Your task to perform on an android device: Go to accessibility settings Image 0: 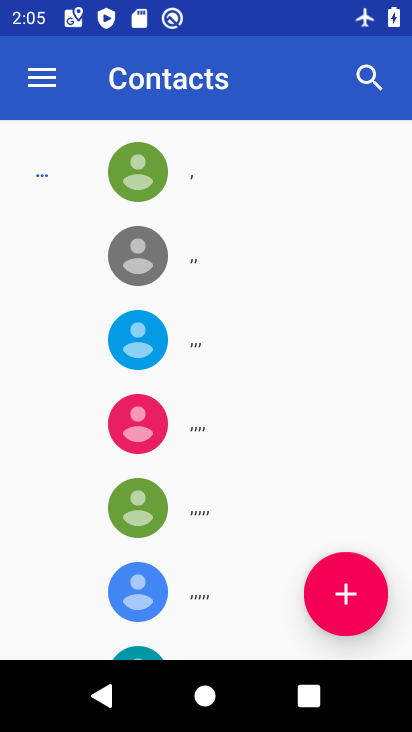
Step 0: press home button
Your task to perform on an android device: Go to accessibility settings Image 1: 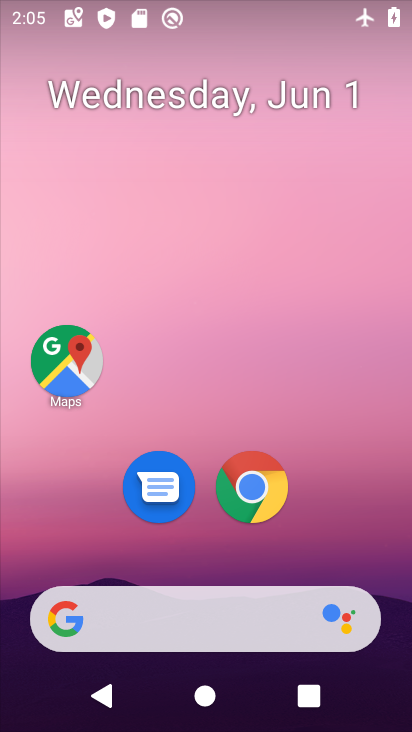
Step 1: drag from (357, 542) to (352, 163)
Your task to perform on an android device: Go to accessibility settings Image 2: 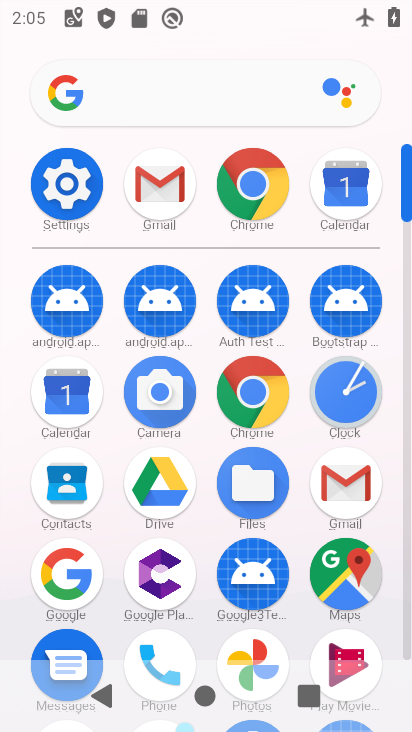
Step 2: click (72, 200)
Your task to perform on an android device: Go to accessibility settings Image 3: 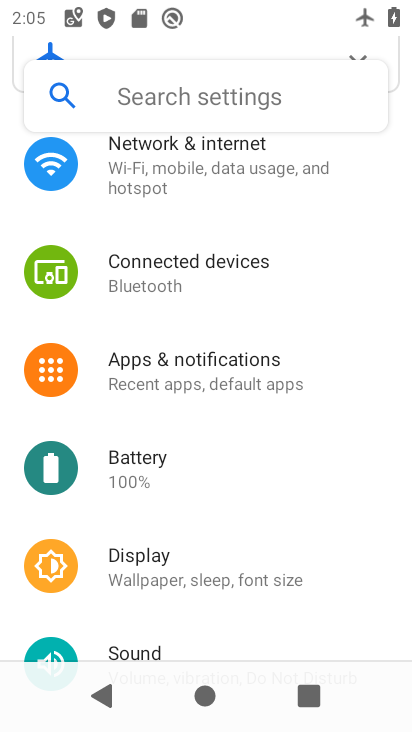
Step 3: drag from (363, 508) to (360, 372)
Your task to perform on an android device: Go to accessibility settings Image 4: 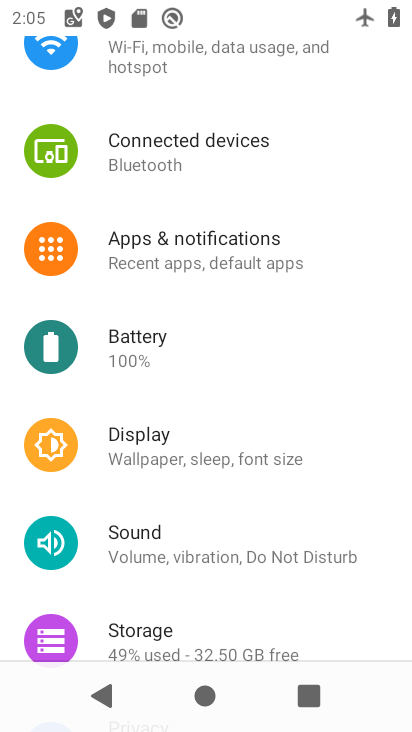
Step 4: drag from (342, 496) to (345, 382)
Your task to perform on an android device: Go to accessibility settings Image 5: 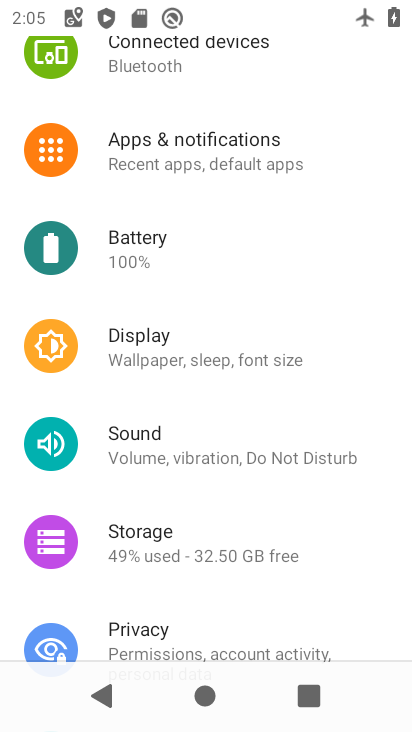
Step 5: drag from (339, 540) to (334, 379)
Your task to perform on an android device: Go to accessibility settings Image 6: 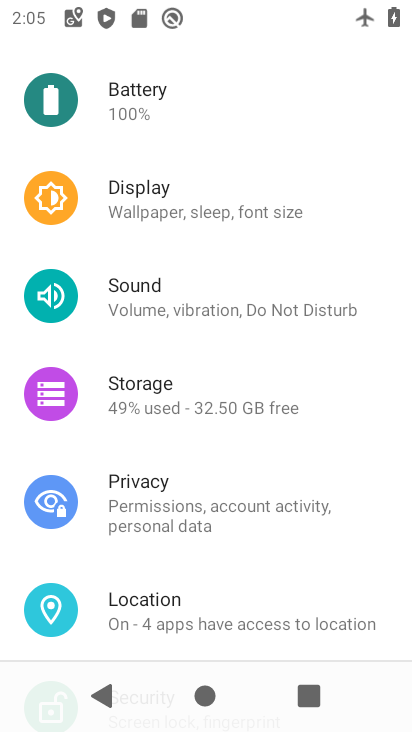
Step 6: drag from (319, 562) to (324, 405)
Your task to perform on an android device: Go to accessibility settings Image 7: 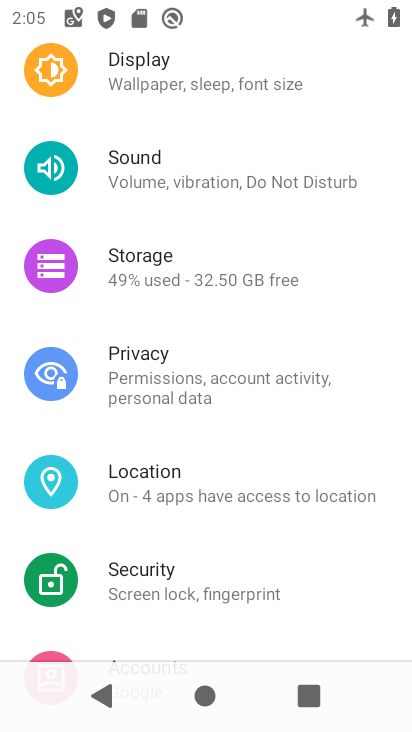
Step 7: drag from (303, 574) to (308, 448)
Your task to perform on an android device: Go to accessibility settings Image 8: 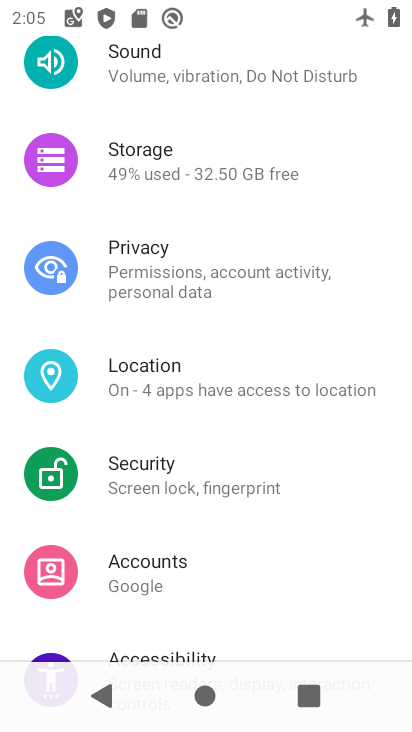
Step 8: drag from (303, 567) to (305, 445)
Your task to perform on an android device: Go to accessibility settings Image 9: 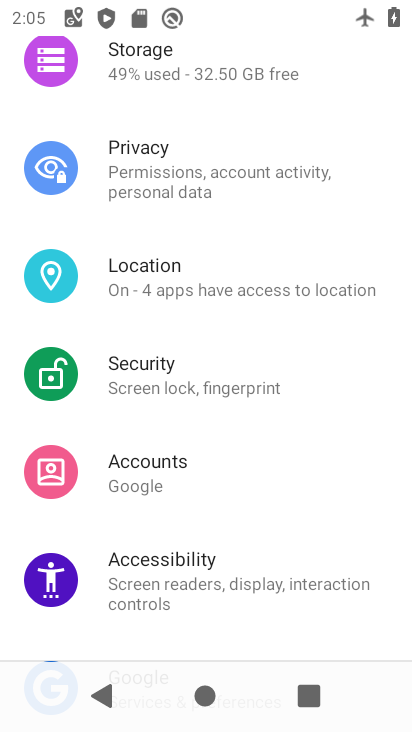
Step 9: drag from (287, 621) to (297, 449)
Your task to perform on an android device: Go to accessibility settings Image 10: 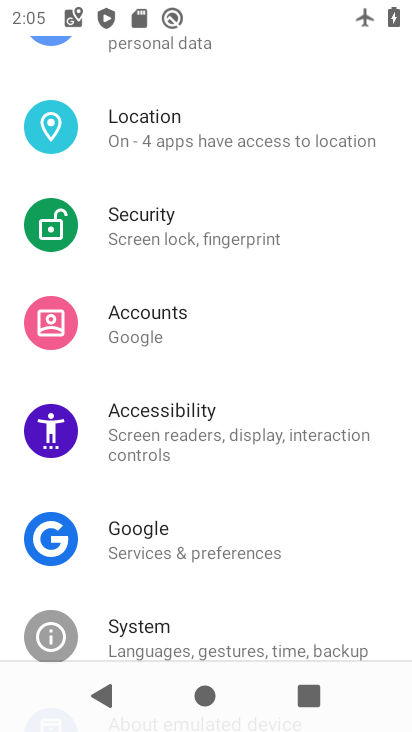
Step 10: drag from (296, 580) to (306, 435)
Your task to perform on an android device: Go to accessibility settings Image 11: 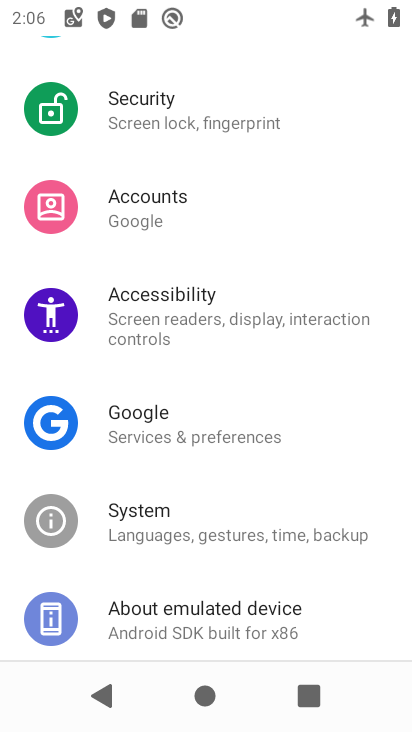
Step 11: click (244, 322)
Your task to perform on an android device: Go to accessibility settings Image 12: 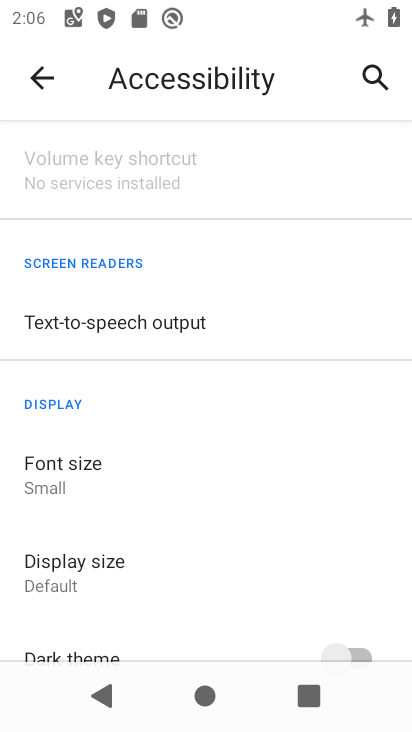
Step 12: task complete